Your task to perform on an android device: refresh tabs in the chrome app Image 0: 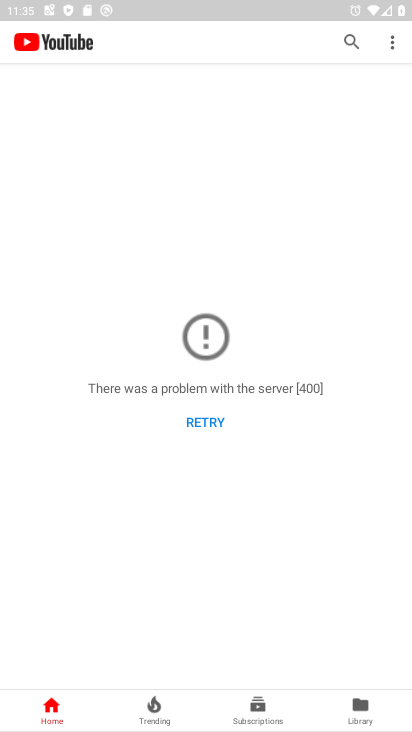
Step 0: press home button
Your task to perform on an android device: refresh tabs in the chrome app Image 1: 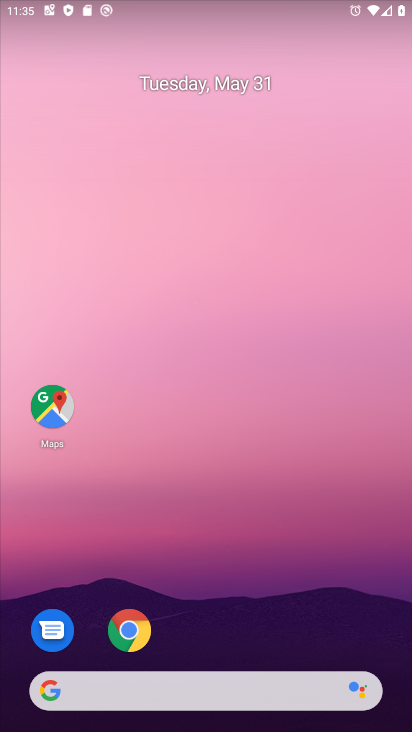
Step 1: click (127, 632)
Your task to perform on an android device: refresh tabs in the chrome app Image 2: 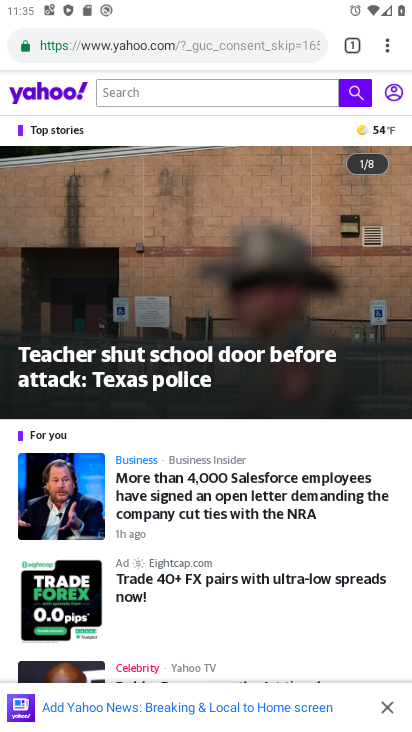
Step 2: click (385, 35)
Your task to perform on an android device: refresh tabs in the chrome app Image 3: 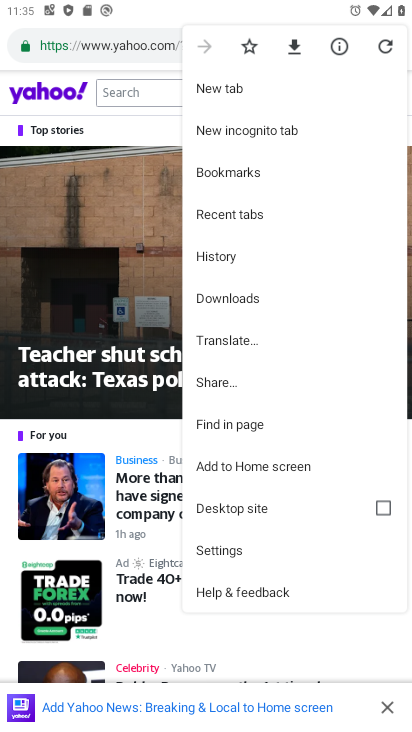
Step 3: click (385, 44)
Your task to perform on an android device: refresh tabs in the chrome app Image 4: 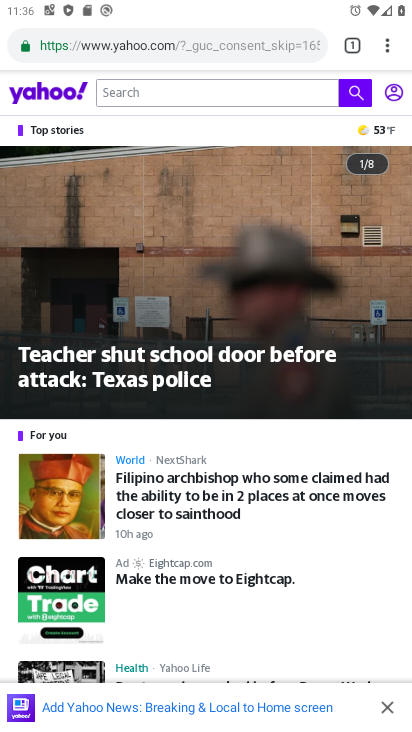
Step 4: click (386, 55)
Your task to perform on an android device: refresh tabs in the chrome app Image 5: 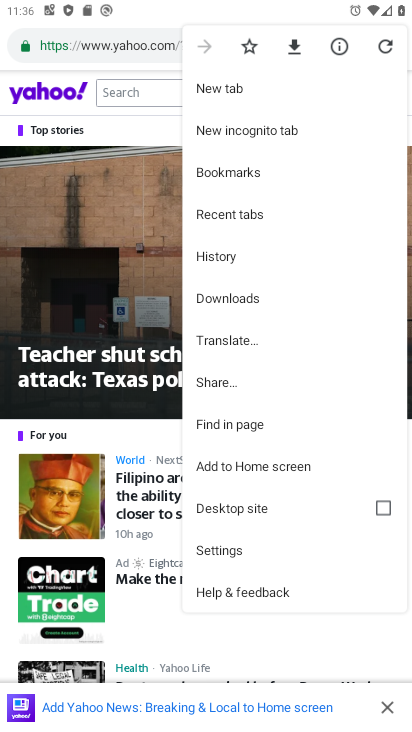
Step 5: task complete